Your task to perform on an android device: Open Google Maps Image 0: 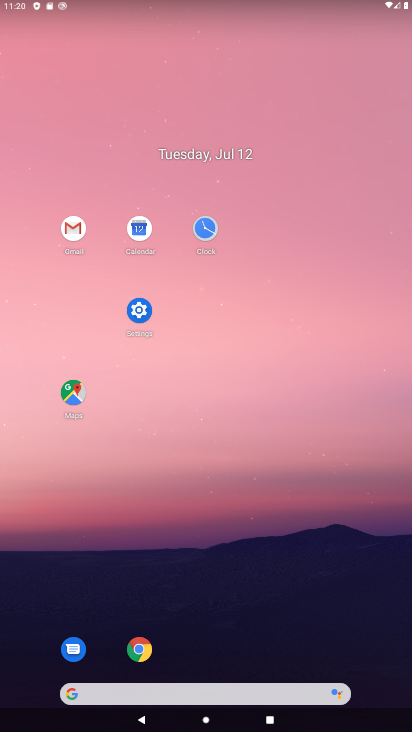
Step 0: click (68, 396)
Your task to perform on an android device: Open Google Maps Image 1: 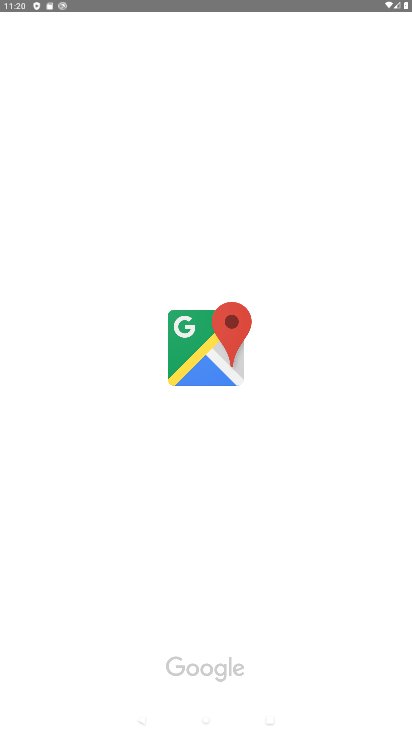
Step 1: task complete